Your task to perform on an android device: Open Youtube and go to "Your channel" Image 0: 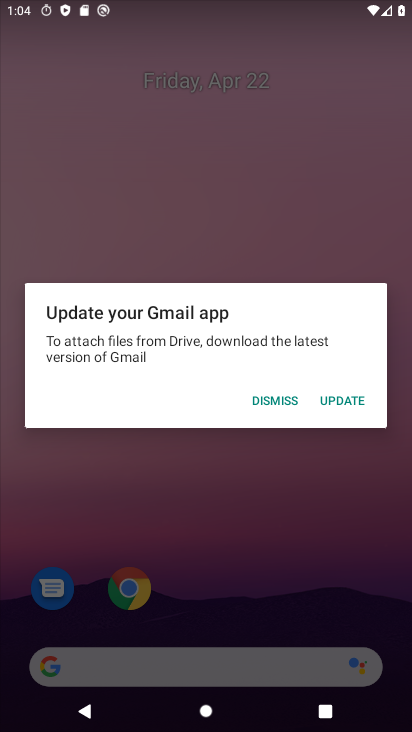
Step 0: press home button
Your task to perform on an android device: Open Youtube and go to "Your channel" Image 1: 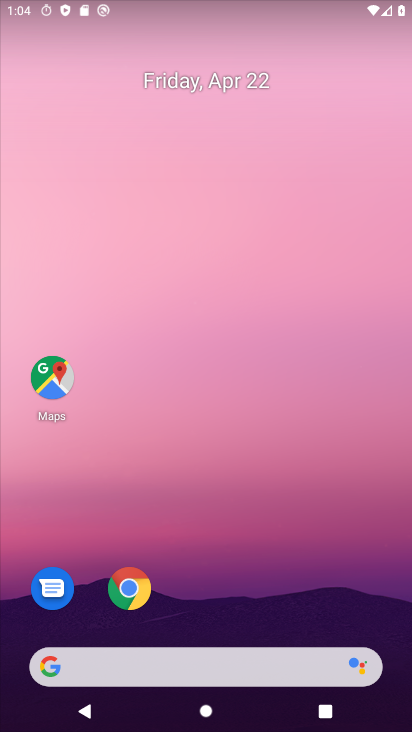
Step 1: drag from (376, 590) to (373, 180)
Your task to perform on an android device: Open Youtube and go to "Your channel" Image 2: 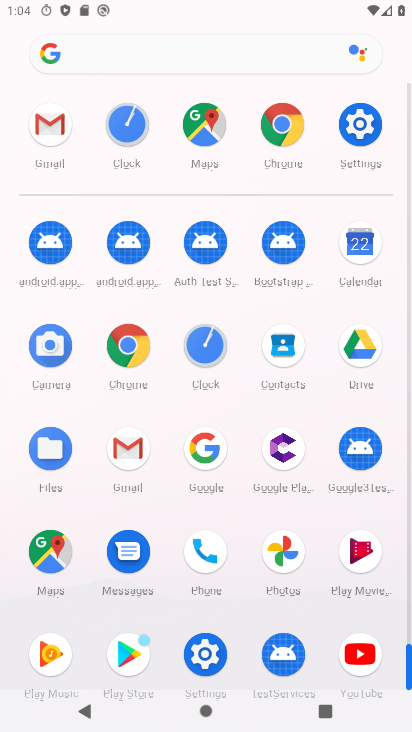
Step 2: click (369, 664)
Your task to perform on an android device: Open Youtube and go to "Your channel" Image 3: 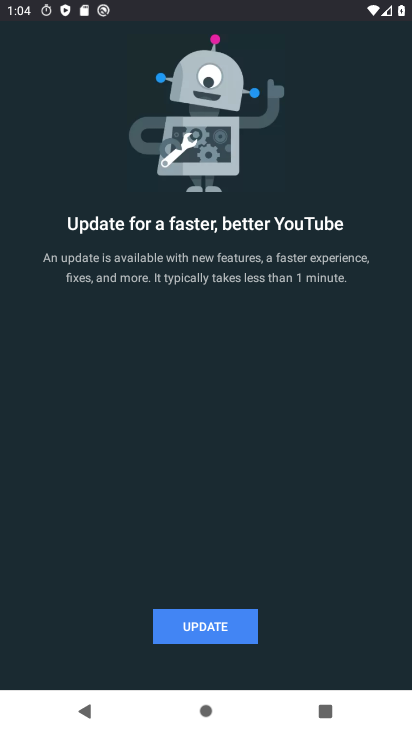
Step 3: click (231, 632)
Your task to perform on an android device: Open Youtube and go to "Your channel" Image 4: 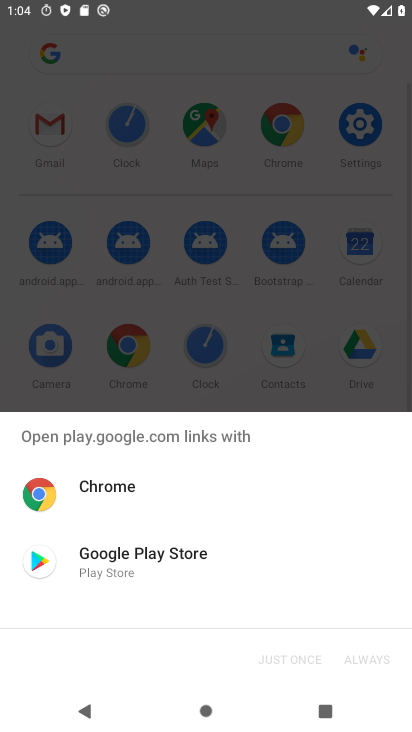
Step 4: click (149, 573)
Your task to perform on an android device: Open Youtube and go to "Your channel" Image 5: 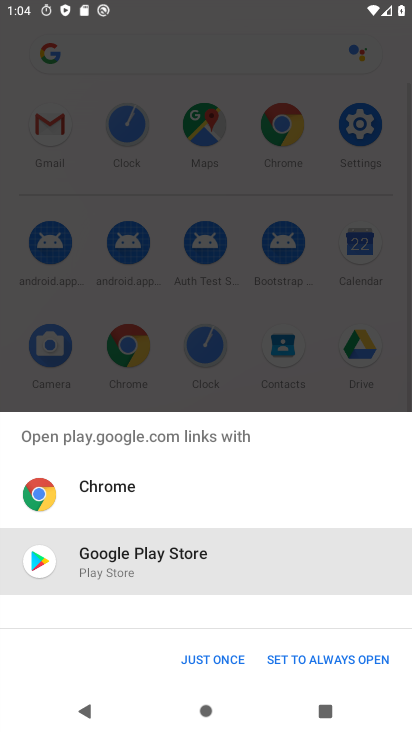
Step 5: click (212, 656)
Your task to perform on an android device: Open Youtube and go to "Your channel" Image 6: 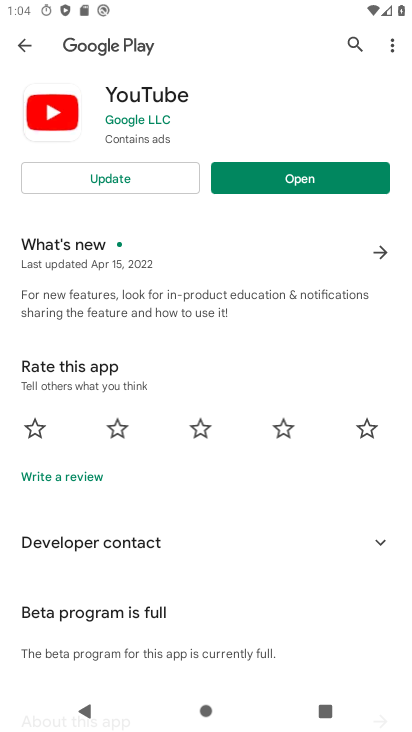
Step 6: click (107, 170)
Your task to perform on an android device: Open Youtube and go to "Your channel" Image 7: 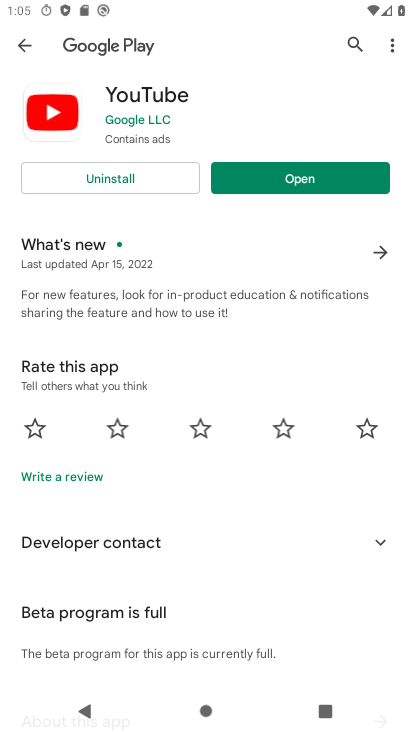
Step 7: click (273, 186)
Your task to perform on an android device: Open Youtube and go to "Your channel" Image 8: 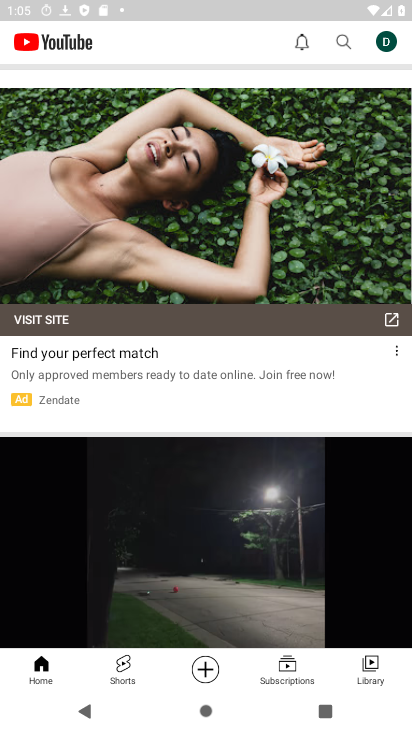
Step 8: click (388, 49)
Your task to perform on an android device: Open Youtube and go to "Your channel" Image 9: 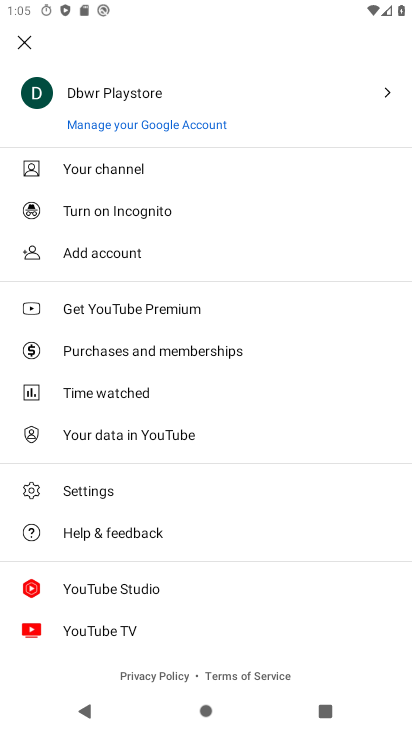
Step 9: click (152, 172)
Your task to perform on an android device: Open Youtube and go to "Your channel" Image 10: 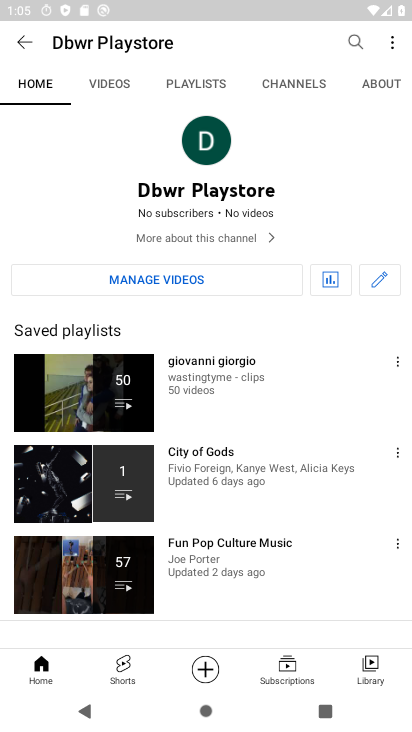
Step 10: task complete